Your task to perform on an android device: Go to CNN.com Image 0: 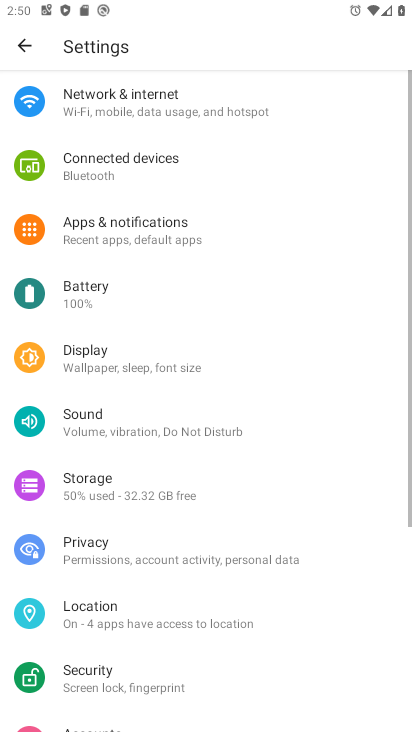
Step 0: press home button
Your task to perform on an android device: Go to CNN.com Image 1: 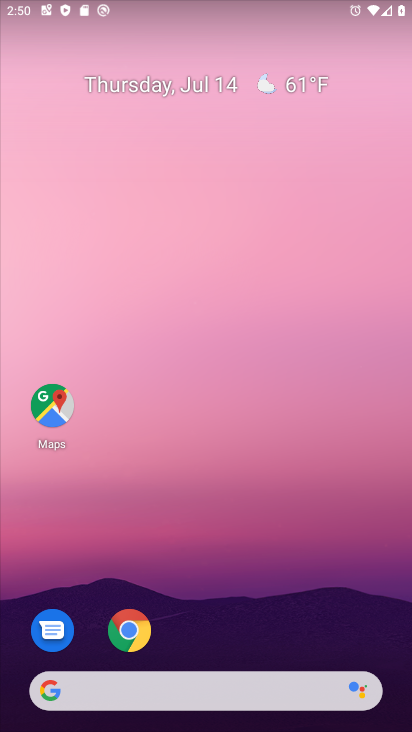
Step 1: click (135, 632)
Your task to perform on an android device: Go to CNN.com Image 2: 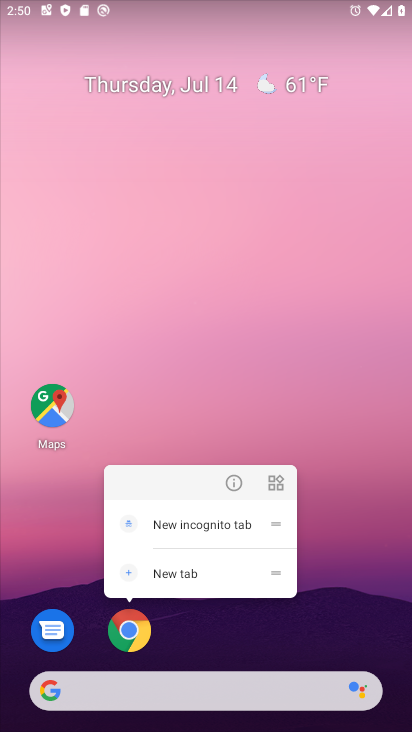
Step 2: click (144, 638)
Your task to perform on an android device: Go to CNN.com Image 3: 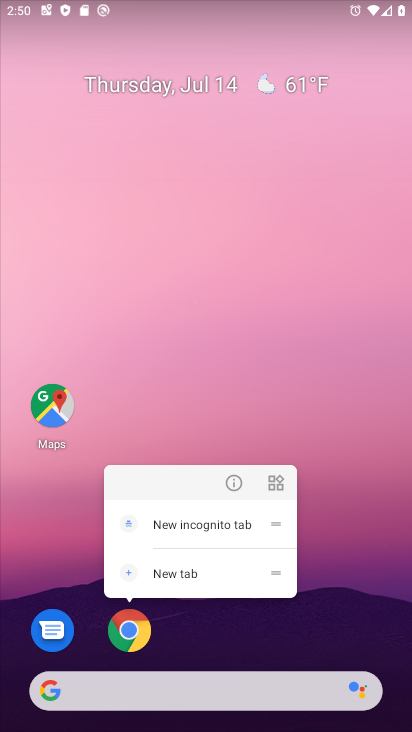
Step 3: click (133, 638)
Your task to perform on an android device: Go to CNN.com Image 4: 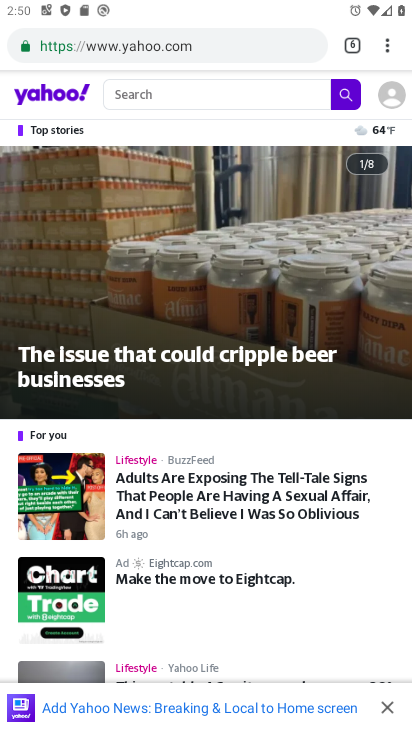
Step 4: drag from (384, 45) to (290, 147)
Your task to perform on an android device: Go to CNN.com Image 5: 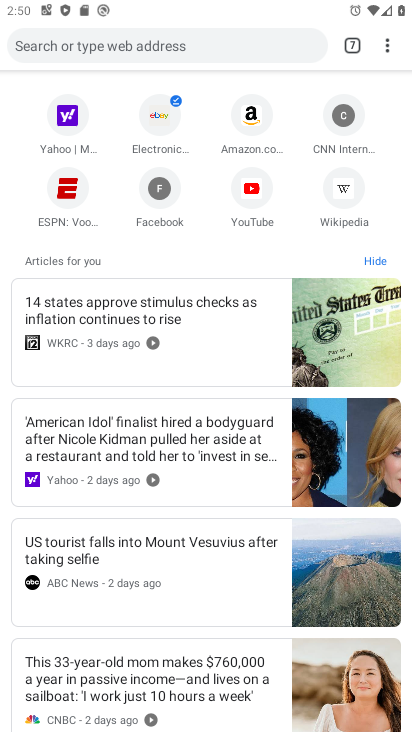
Step 5: click (338, 119)
Your task to perform on an android device: Go to CNN.com Image 6: 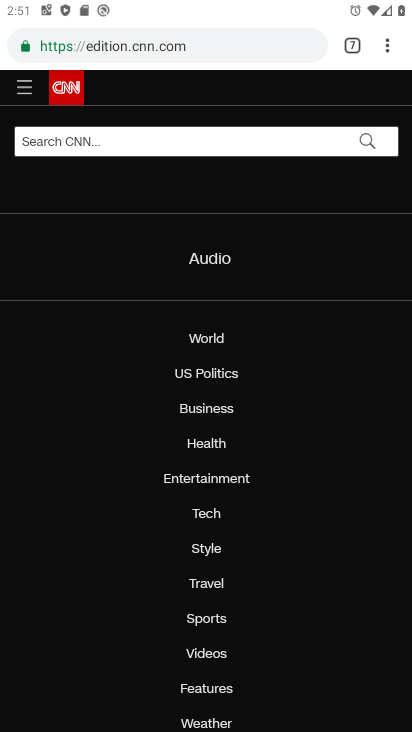
Step 6: task complete